Your task to perform on an android device: create a new album in the google photos Image 0: 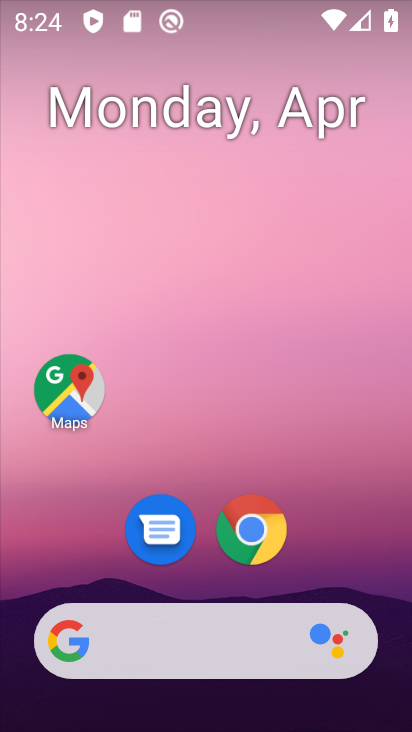
Step 0: drag from (380, 540) to (372, 113)
Your task to perform on an android device: create a new album in the google photos Image 1: 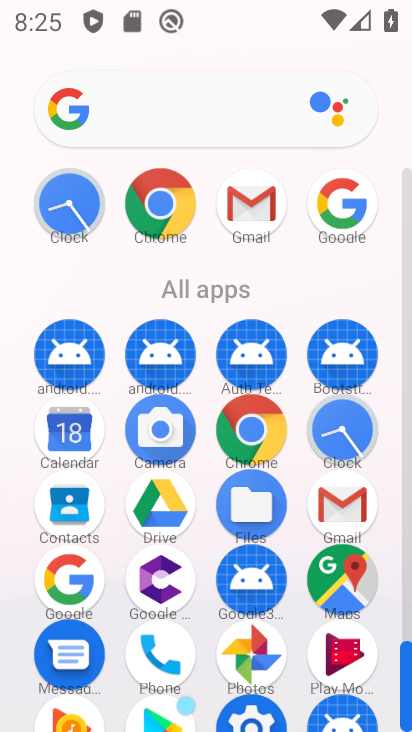
Step 1: click (270, 654)
Your task to perform on an android device: create a new album in the google photos Image 2: 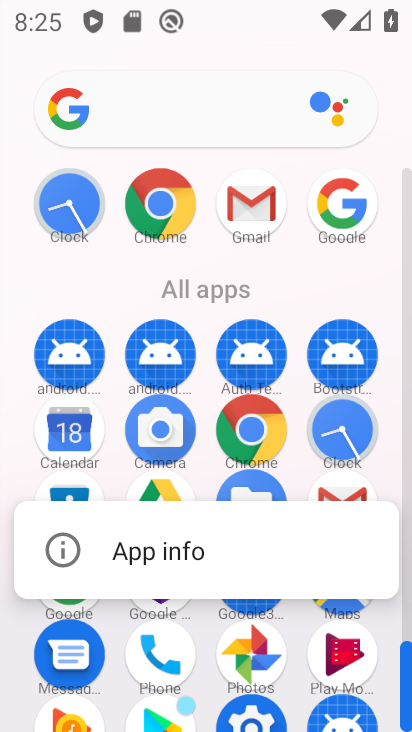
Step 2: click (260, 641)
Your task to perform on an android device: create a new album in the google photos Image 3: 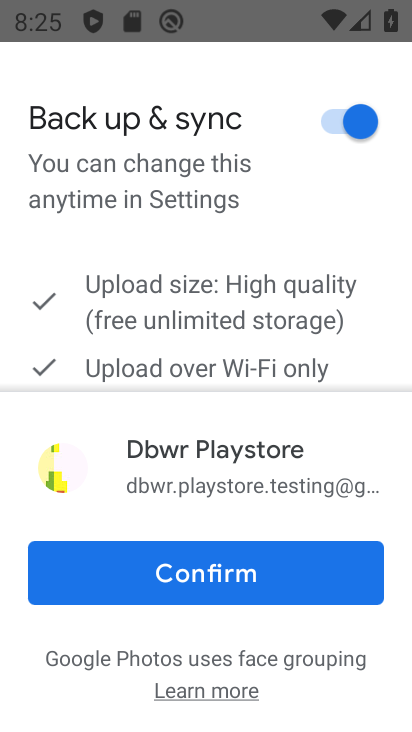
Step 3: click (157, 585)
Your task to perform on an android device: create a new album in the google photos Image 4: 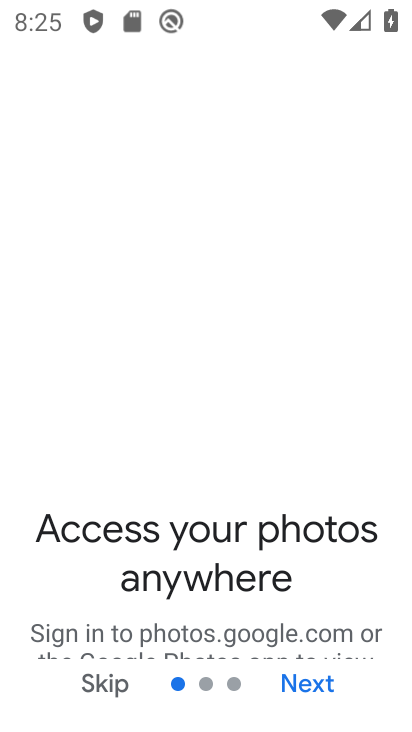
Step 4: click (320, 680)
Your task to perform on an android device: create a new album in the google photos Image 5: 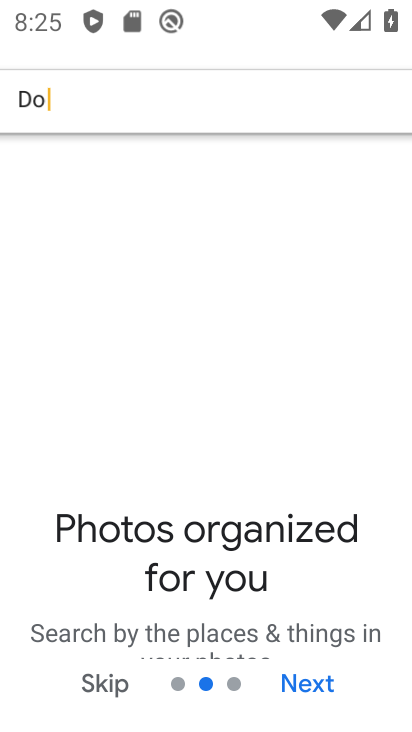
Step 5: click (318, 680)
Your task to perform on an android device: create a new album in the google photos Image 6: 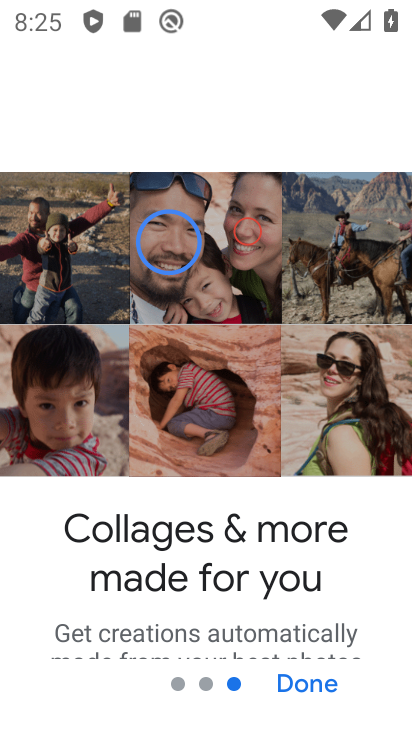
Step 6: click (318, 680)
Your task to perform on an android device: create a new album in the google photos Image 7: 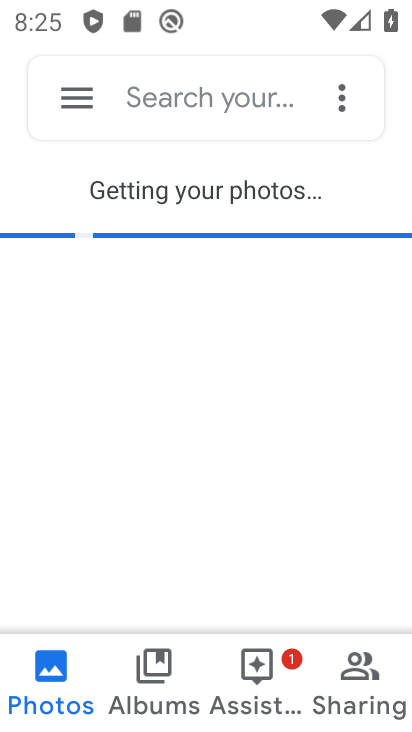
Step 7: click (162, 680)
Your task to perform on an android device: create a new album in the google photos Image 8: 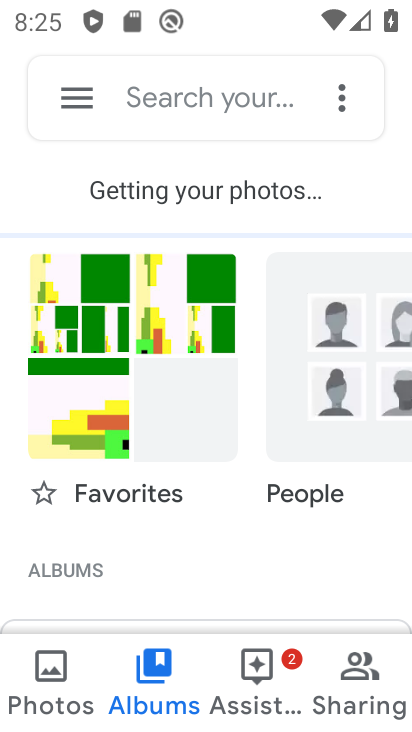
Step 8: drag from (183, 557) to (188, 298)
Your task to perform on an android device: create a new album in the google photos Image 9: 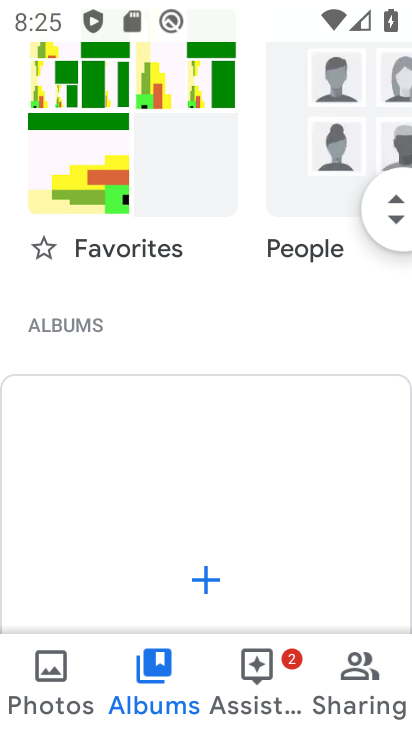
Step 9: click (204, 572)
Your task to perform on an android device: create a new album in the google photos Image 10: 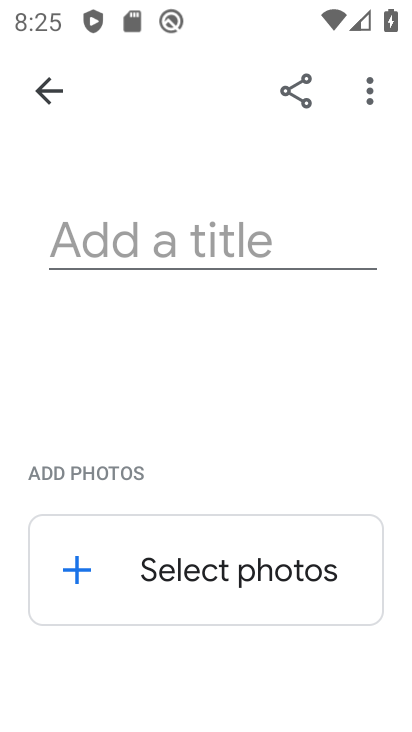
Step 10: click (170, 235)
Your task to perform on an android device: create a new album in the google photos Image 11: 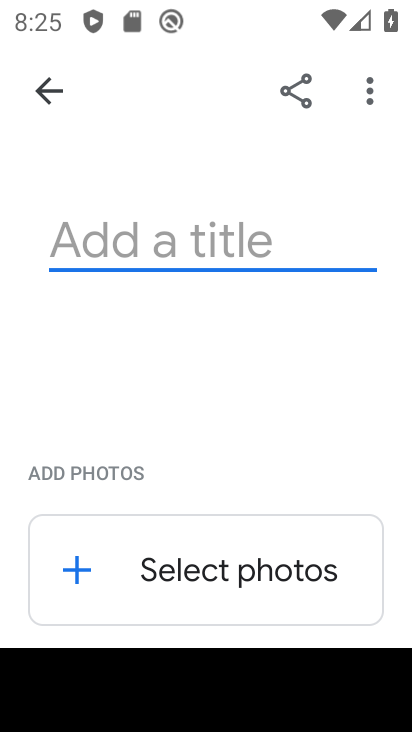
Step 11: type "home"
Your task to perform on an android device: create a new album in the google photos Image 12: 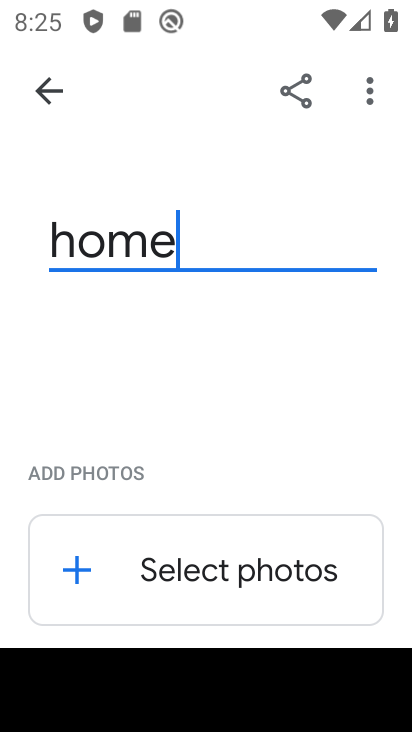
Step 12: click (64, 572)
Your task to perform on an android device: create a new album in the google photos Image 13: 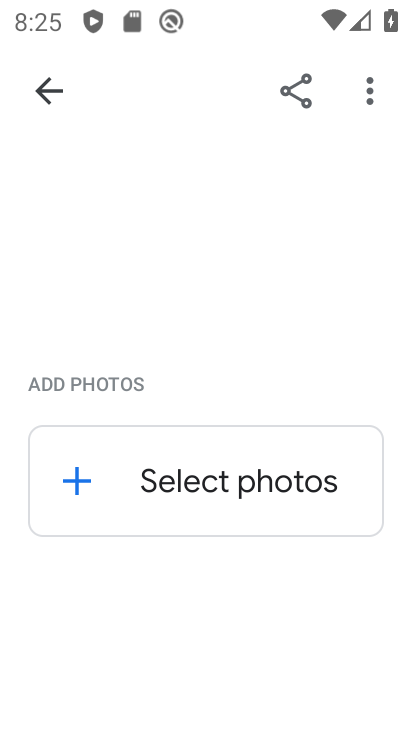
Step 13: click (76, 475)
Your task to perform on an android device: create a new album in the google photos Image 14: 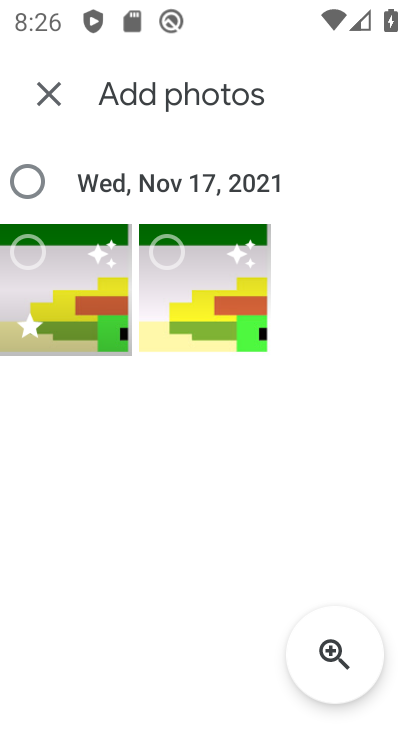
Step 14: click (22, 245)
Your task to perform on an android device: create a new album in the google photos Image 15: 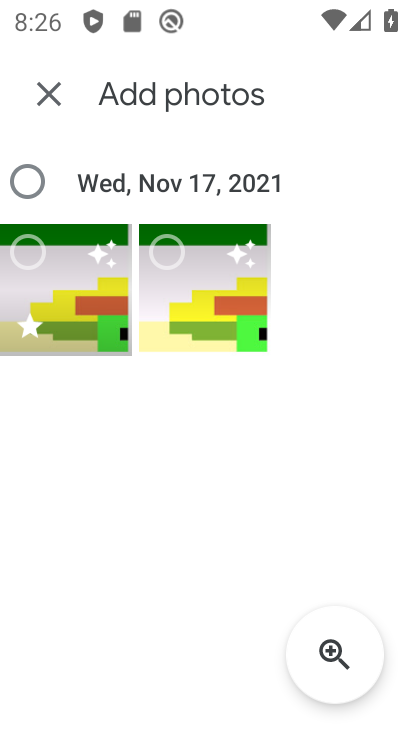
Step 15: click (32, 253)
Your task to perform on an android device: create a new album in the google photos Image 16: 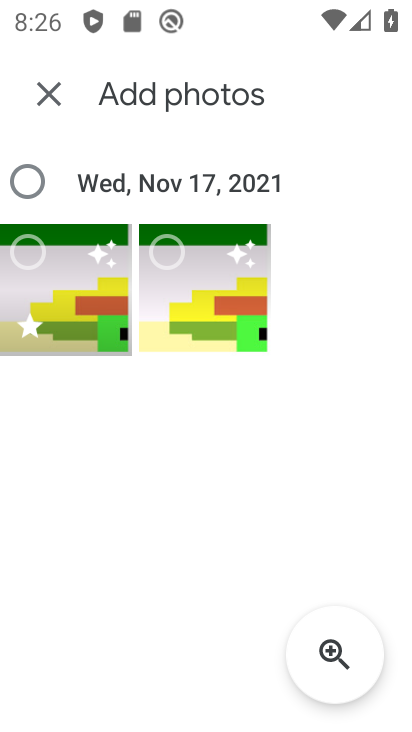
Step 16: click (26, 256)
Your task to perform on an android device: create a new album in the google photos Image 17: 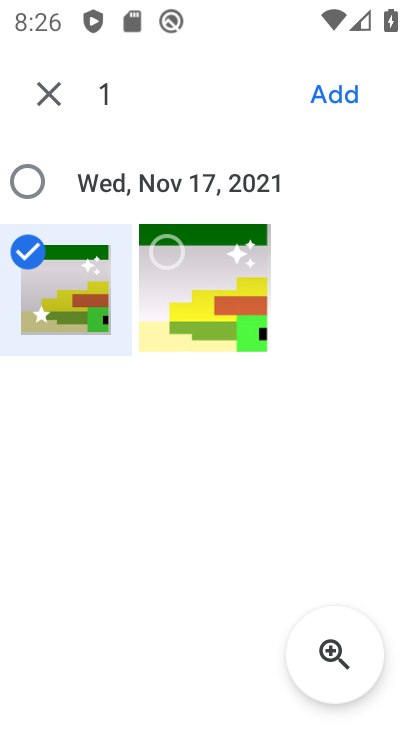
Step 17: click (26, 256)
Your task to perform on an android device: create a new album in the google photos Image 18: 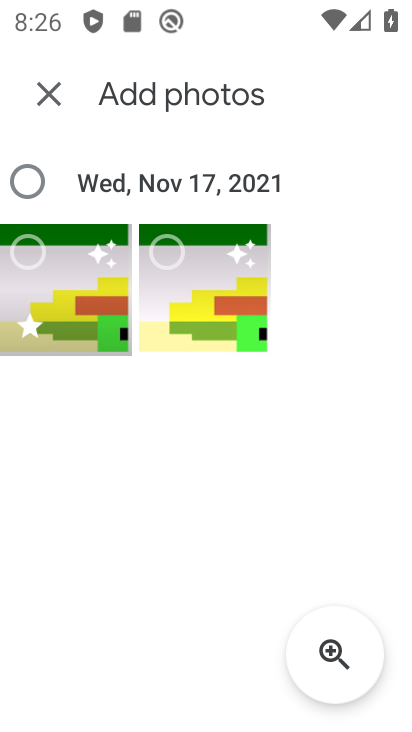
Step 18: click (32, 261)
Your task to perform on an android device: create a new album in the google photos Image 19: 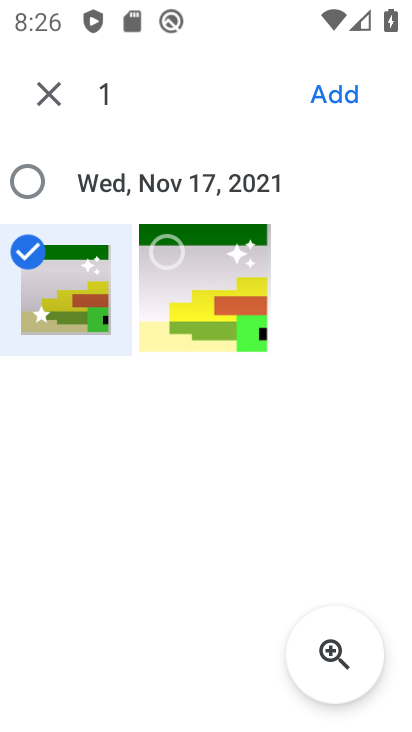
Step 19: click (354, 98)
Your task to perform on an android device: create a new album in the google photos Image 20: 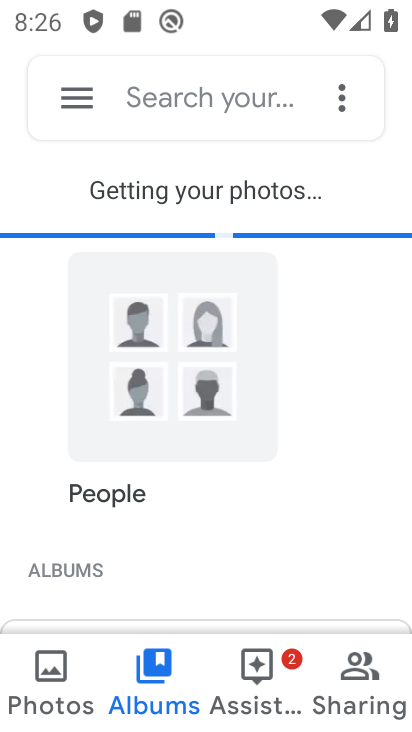
Step 20: task complete